Your task to perform on an android device: What's the weather? Image 0: 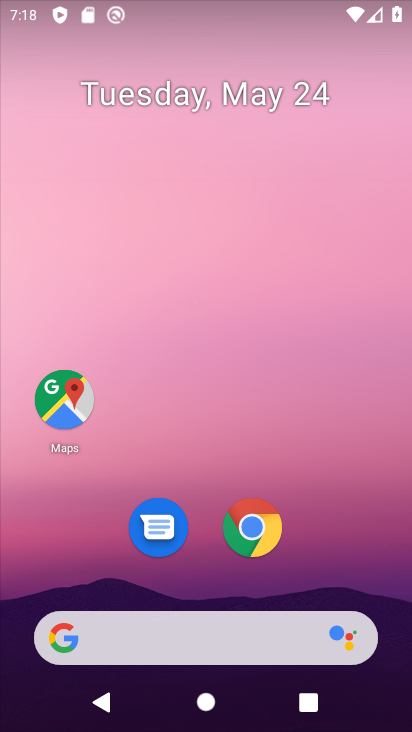
Step 0: click (249, 521)
Your task to perform on an android device: What's the weather? Image 1: 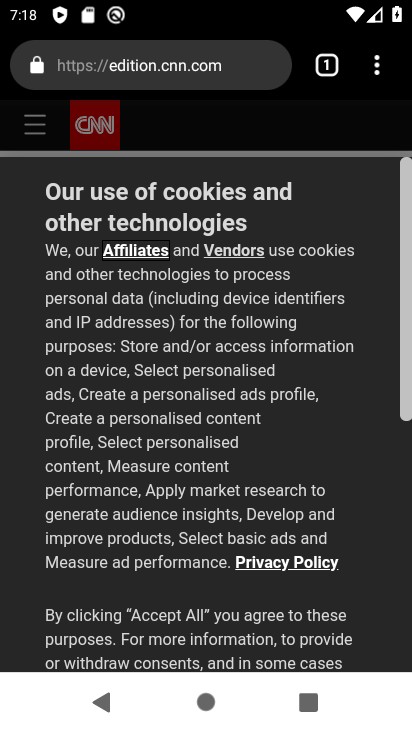
Step 1: click (370, 55)
Your task to perform on an android device: What's the weather? Image 2: 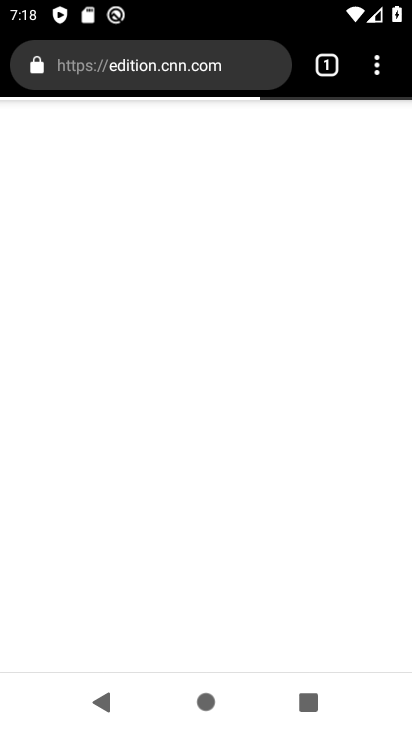
Step 2: click (376, 60)
Your task to perform on an android device: What's the weather? Image 3: 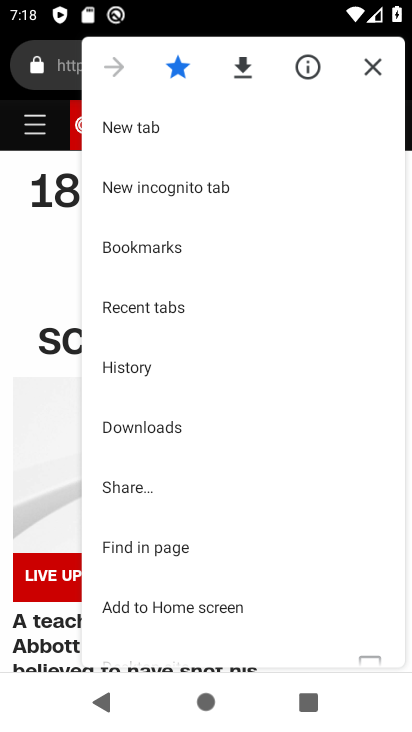
Step 3: click (175, 133)
Your task to perform on an android device: What's the weather? Image 4: 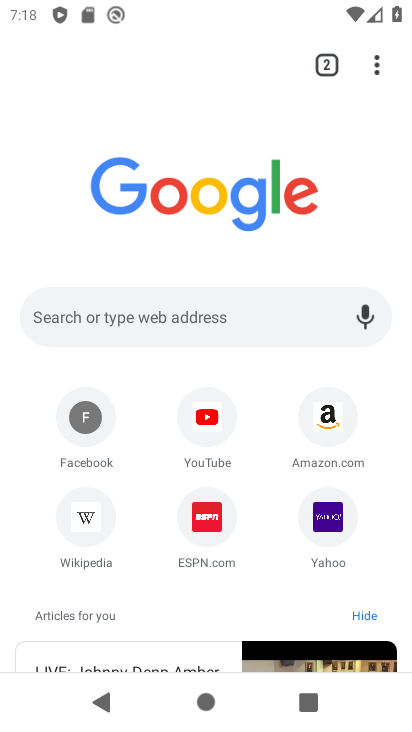
Step 4: click (152, 305)
Your task to perform on an android device: What's the weather? Image 5: 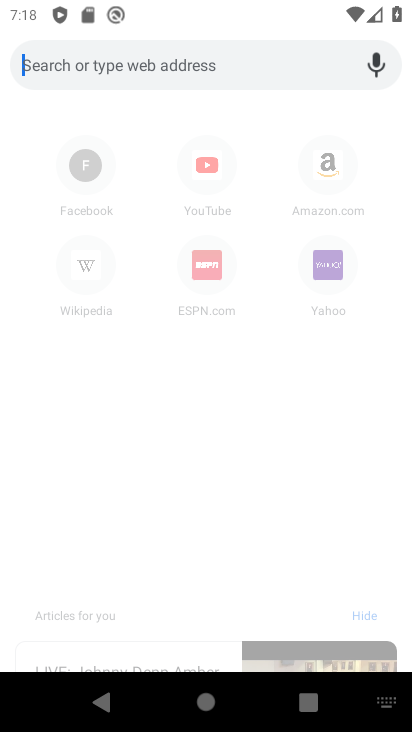
Step 5: type "What's the weather?"
Your task to perform on an android device: What's the weather? Image 6: 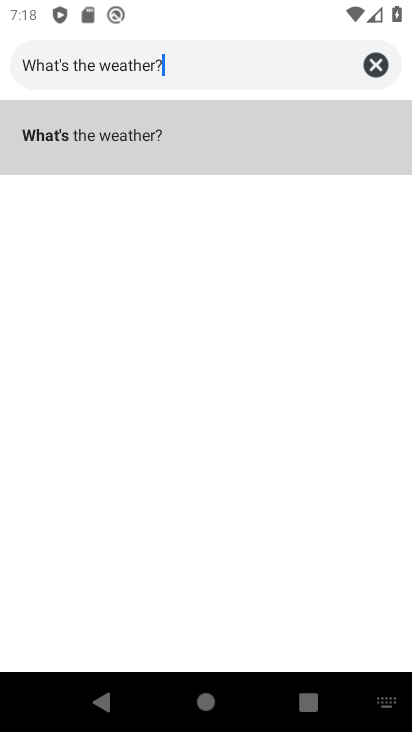
Step 6: click (194, 139)
Your task to perform on an android device: What's the weather? Image 7: 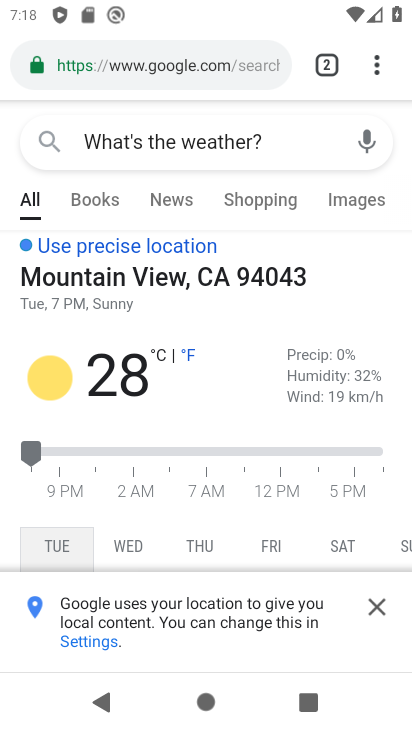
Step 7: task complete